Your task to perform on an android device: turn off picture-in-picture Image 0: 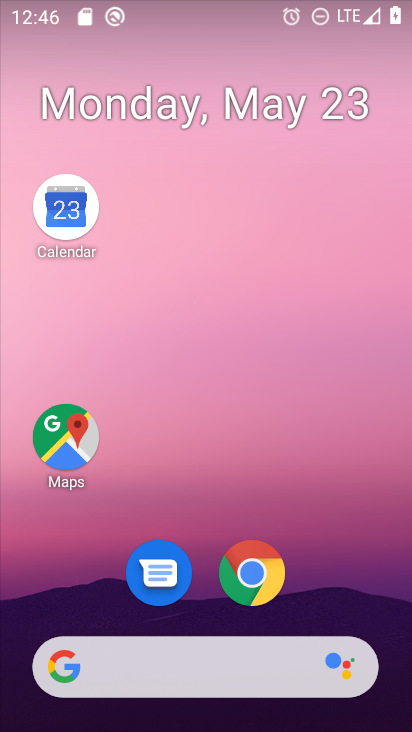
Step 0: click (242, 574)
Your task to perform on an android device: turn off picture-in-picture Image 1: 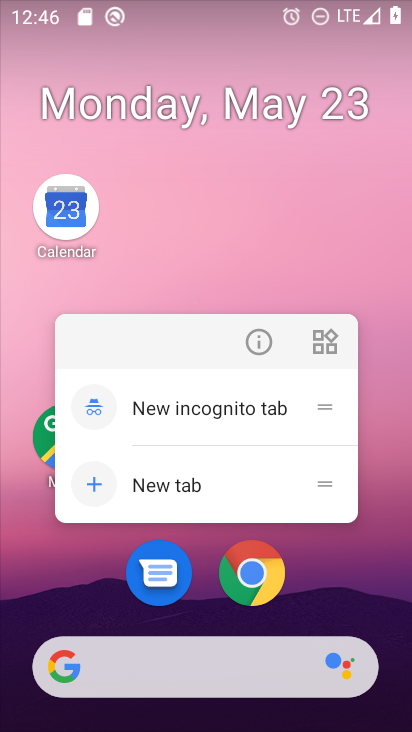
Step 1: click (257, 346)
Your task to perform on an android device: turn off picture-in-picture Image 2: 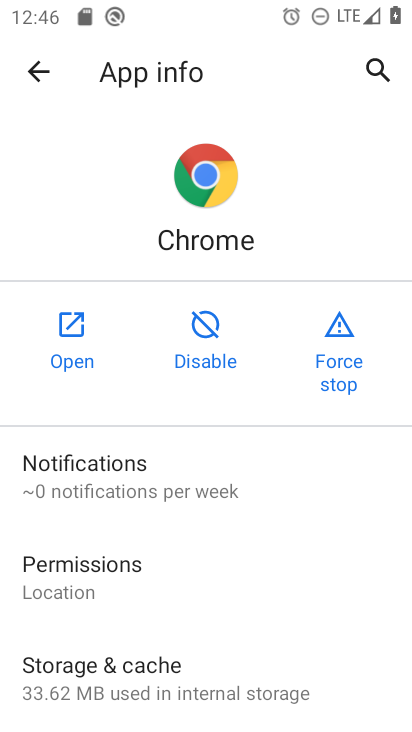
Step 2: drag from (232, 644) to (253, 379)
Your task to perform on an android device: turn off picture-in-picture Image 3: 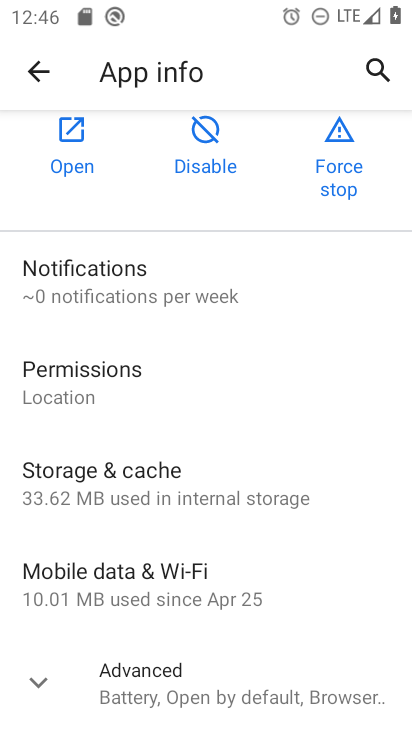
Step 3: click (241, 701)
Your task to perform on an android device: turn off picture-in-picture Image 4: 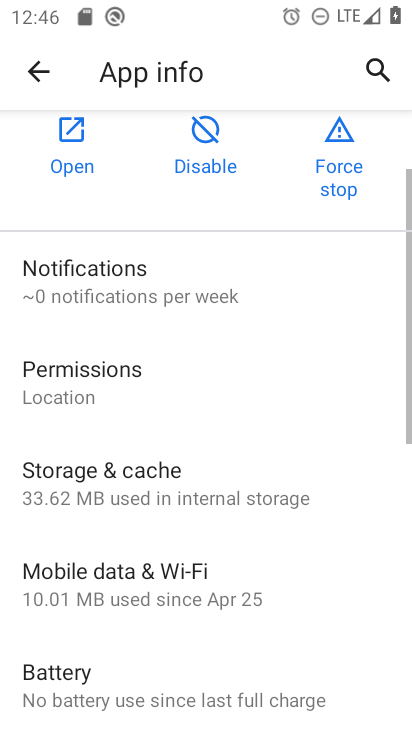
Step 4: drag from (241, 691) to (260, 377)
Your task to perform on an android device: turn off picture-in-picture Image 5: 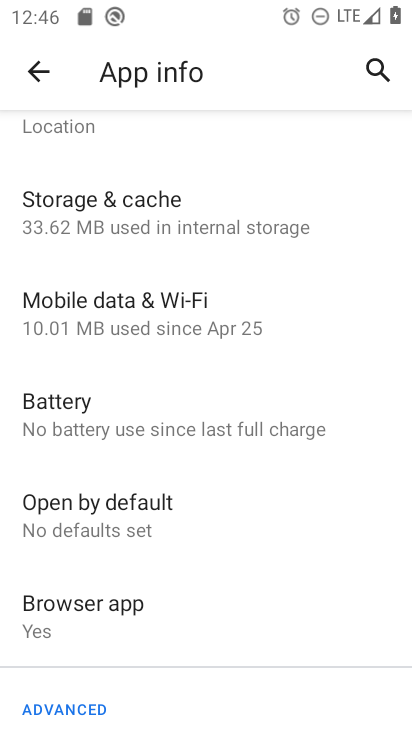
Step 5: drag from (215, 630) to (282, 380)
Your task to perform on an android device: turn off picture-in-picture Image 6: 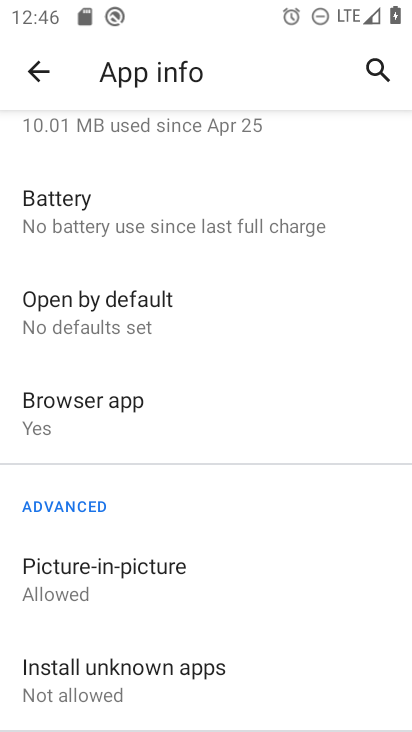
Step 6: click (184, 579)
Your task to perform on an android device: turn off picture-in-picture Image 7: 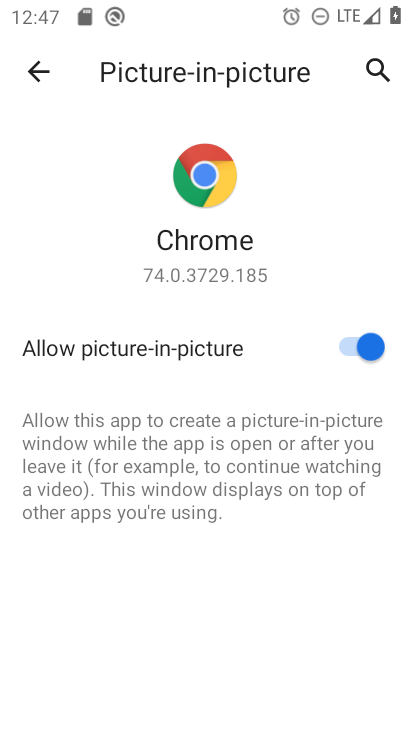
Step 7: click (342, 346)
Your task to perform on an android device: turn off picture-in-picture Image 8: 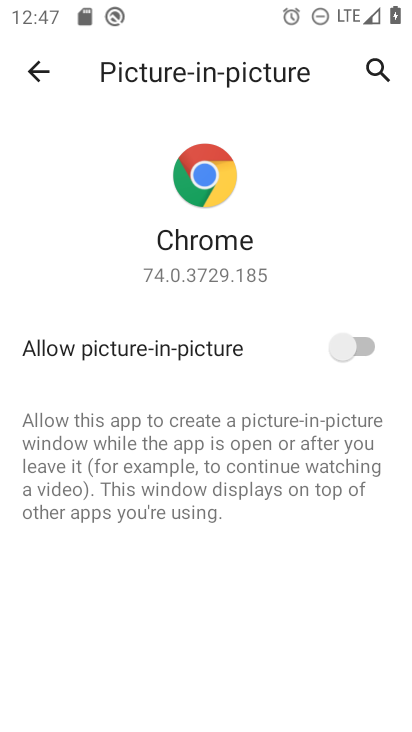
Step 8: task complete